Your task to perform on an android device: check the backup settings in the google photos Image 0: 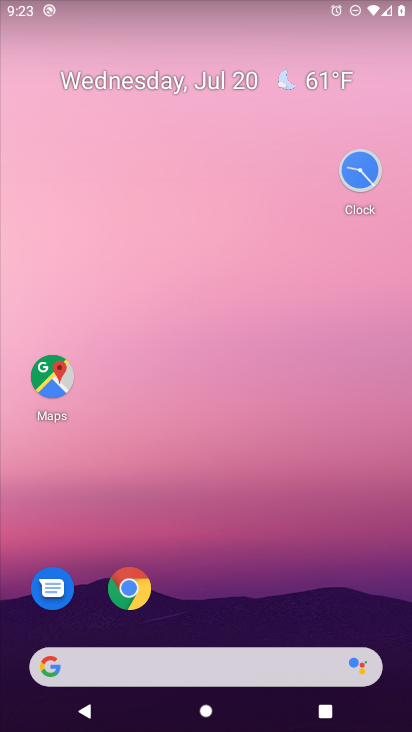
Step 0: drag from (23, 705) to (185, 271)
Your task to perform on an android device: check the backup settings in the google photos Image 1: 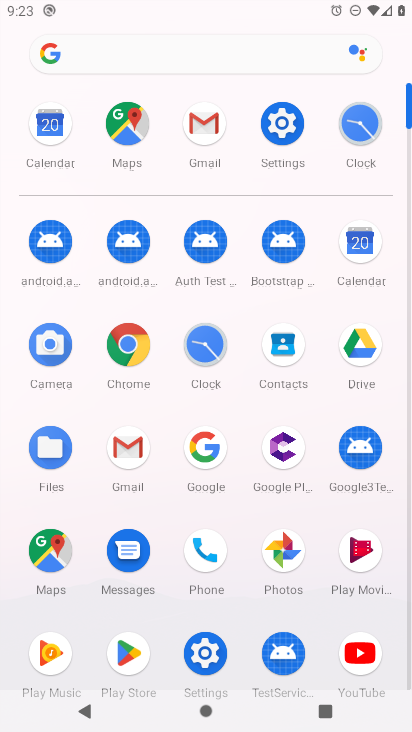
Step 1: click (295, 556)
Your task to perform on an android device: check the backup settings in the google photos Image 2: 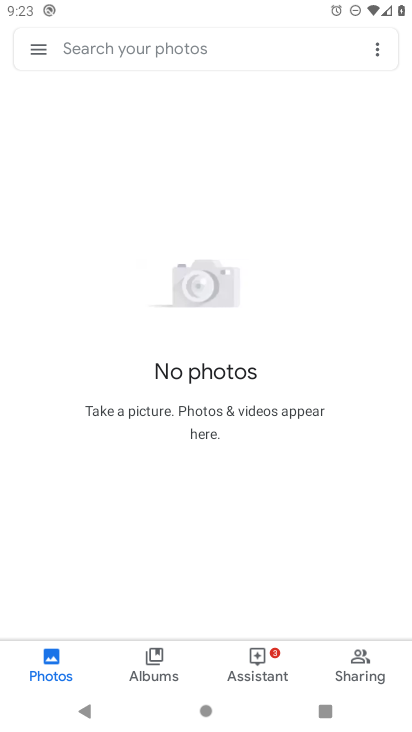
Step 2: click (25, 52)
Your task to perform on an android device: check the backup settings in the google photos Image 3: 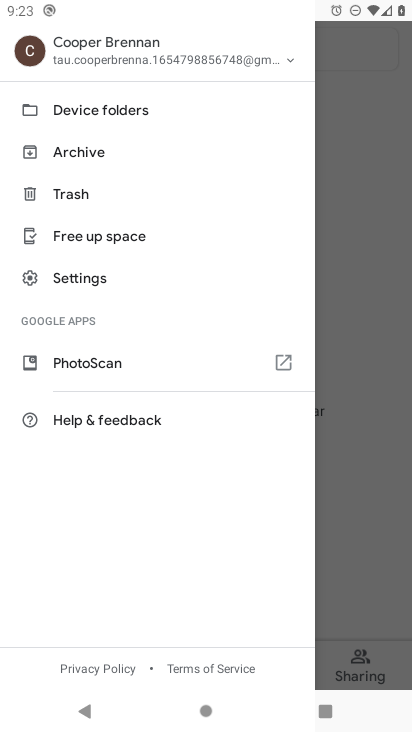
Step 3: click (68, 282)
Your task to perform on an android device: check the backup settings in the google photos Image 4: 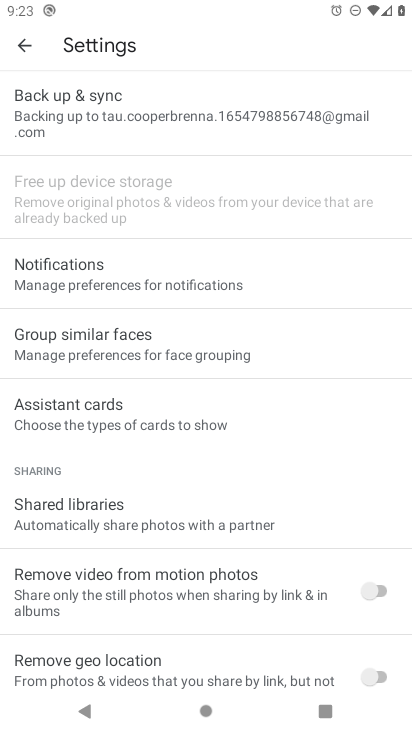
Step 4: click (96, 110)
Your task to perform on an android device: check the backup settings in the google photos Image 5: 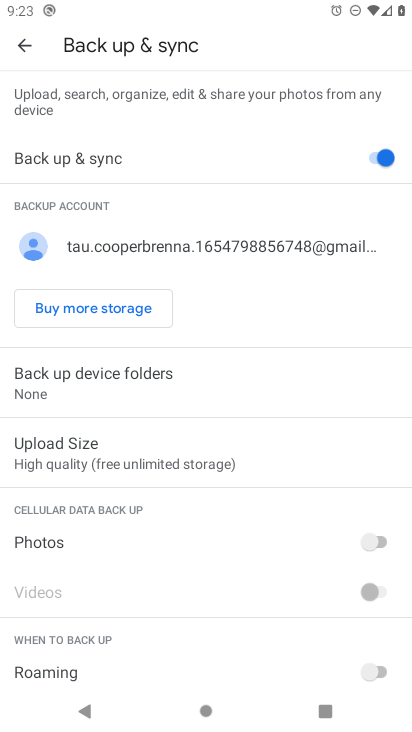
Step 5: task complete